Your task to perform on an android device: Search for vegetarian restaurants on Maps Image 0: 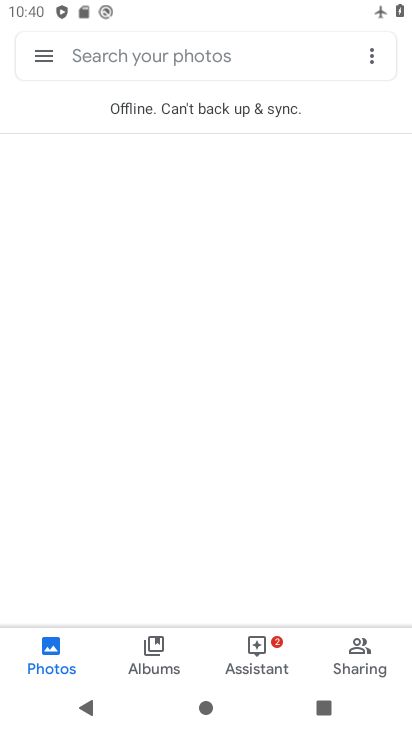
Step 0: press home button
Your task to perform on an android device: Search for vegetarian restaurants on Maps Image 1: 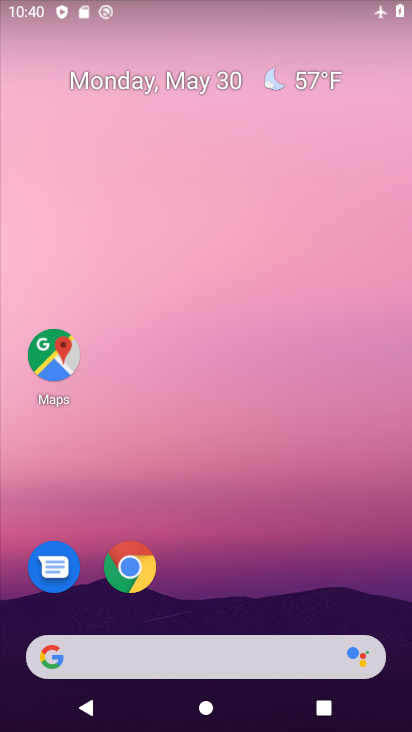
Step 1: click (56, 371)
Your task to perform on an android device: Search for vegetarian restaurants on Maps Image 2: 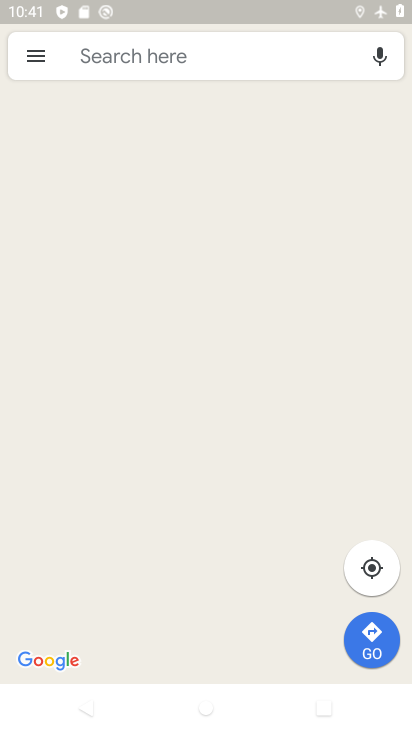
Step 2: click (122, 54)
Your task to perform on an android device: Search for vegetarian restaurants on Maps Image 3: 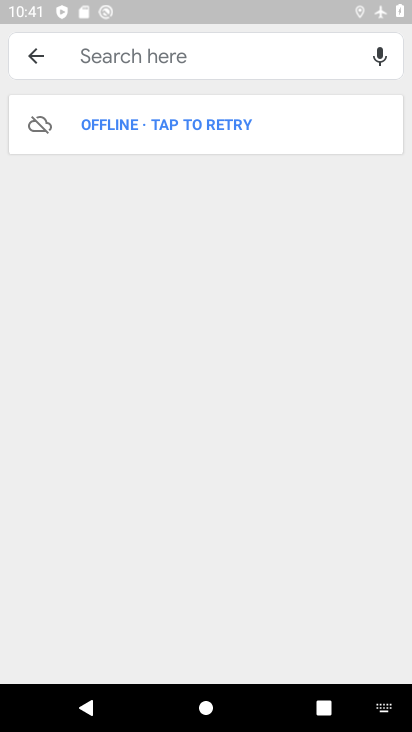
Step 3: type "vegetarian restaurants"
Your task to perform on an android device: Search for vegetarian restaurants on Maps Image 4: 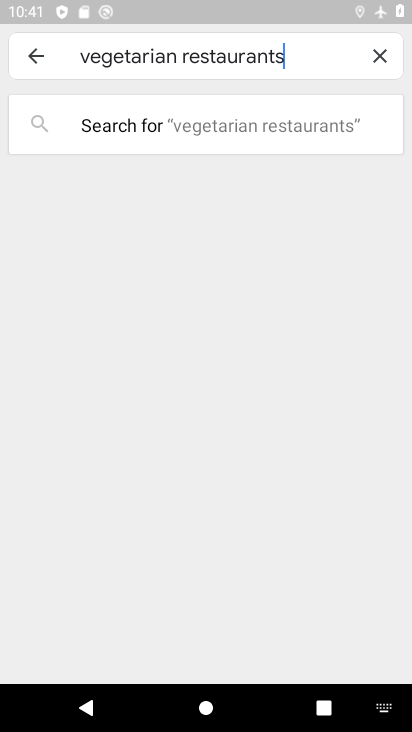
Step 4: task complete